Your task to perform on an android device: toggle priority inbox in the gmail app Image 0: 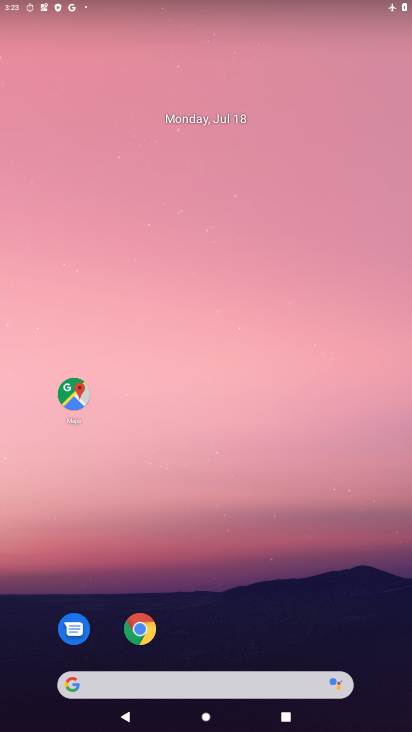
Step 0: drag from (191, 665) to (187, 16)
Your task to perform on an android device: toggle priority inbox in the gmail app Image 1: 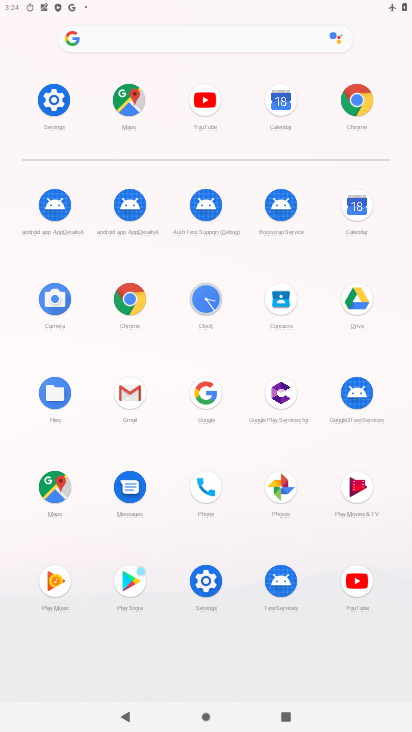
Step 1: click (130, 400)
Your task to perform on an android device: toggle priority inbox in the gmail app Image 2: 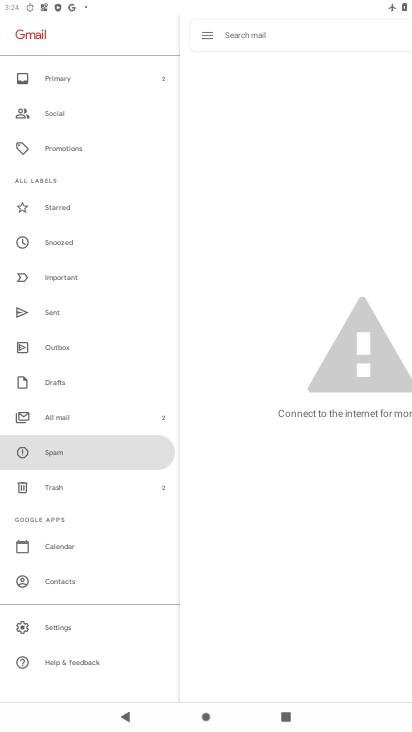
Step 2: click (74, 618)
Your task to perform on an android device: toggle priority inbox in the gmail app Image 3: 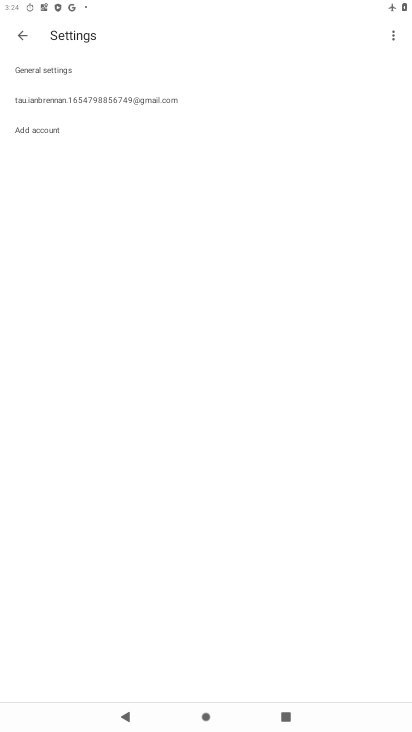
Step 3: click (73, 103)
Your task to perform on an android device: toggle priority inbox in the gmail app Image 4: 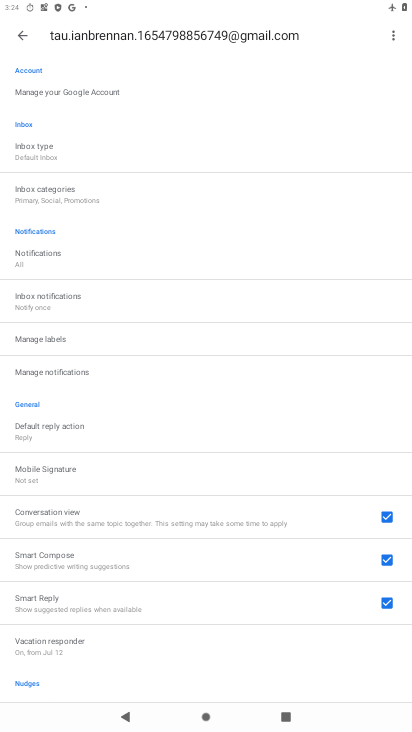
Step 4: click (43, 159)
Your task to perform on an android device: toggle priority inbox in the gmail app Image 5: 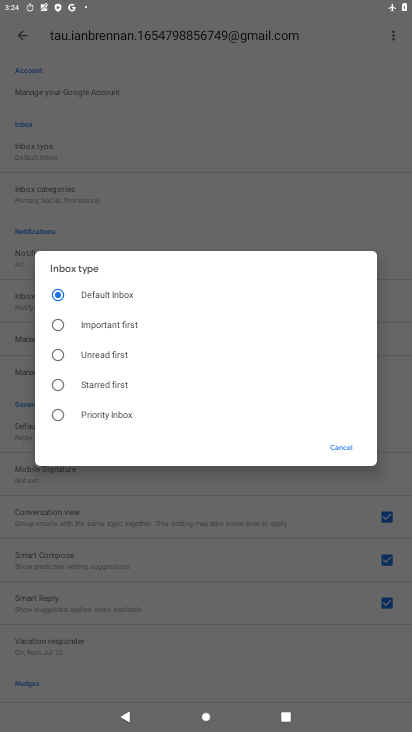
Step 5: task complete